Your task to perform on an android device: When is my next appointment? Image 0: 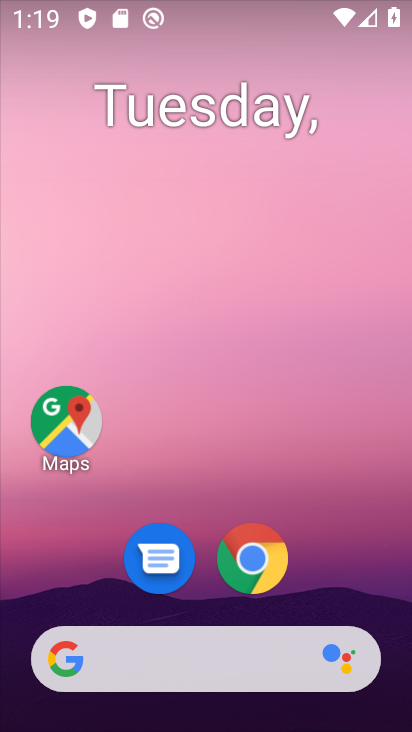
Step 0: drag from (214, 510) to (301, 82)
Your task to perform on an android device: When is my next appointment? Image 1: 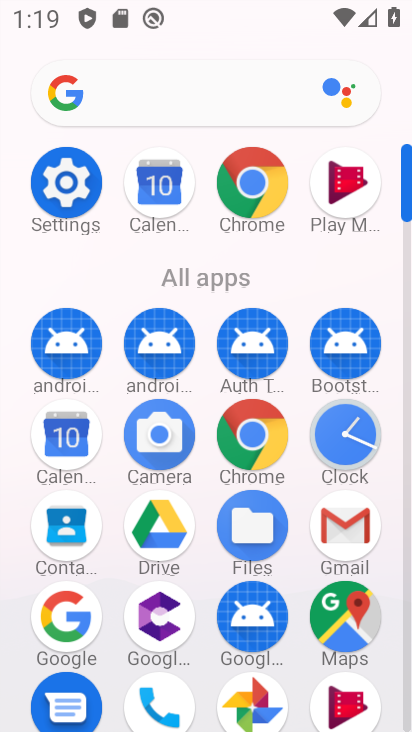
Step 1: click (56, 439)
Your task to perform on an android device: When is my next appointment? Image 2: 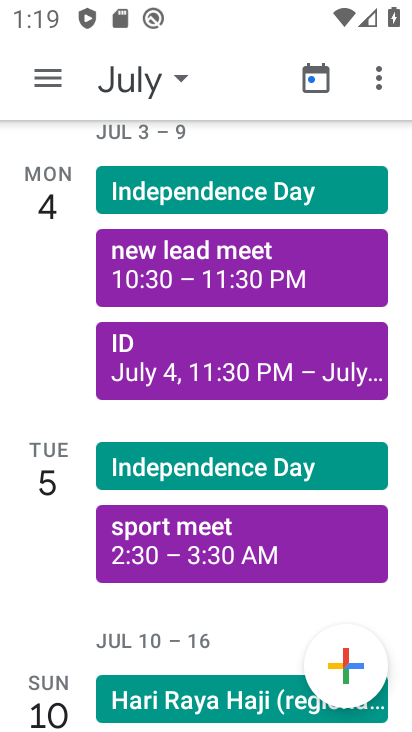
Step 2: click (148, 79)
Your task to perform on an android device: When is my next appointment? Image 3: 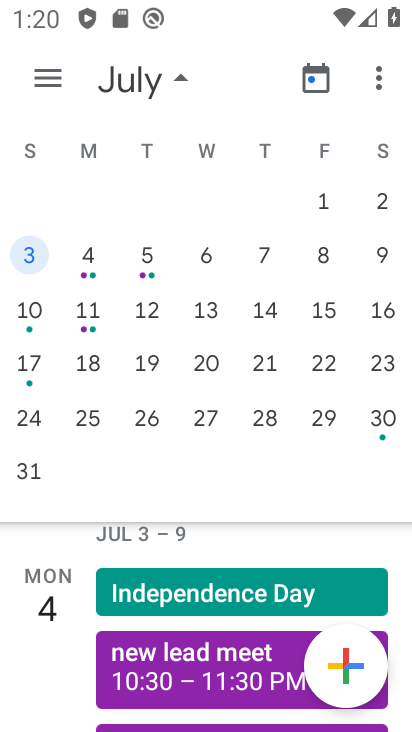
Step 3: drag from (6, 306) to (402, 336)
Your task to perform on an android device: When is my next appointment? Image 4: 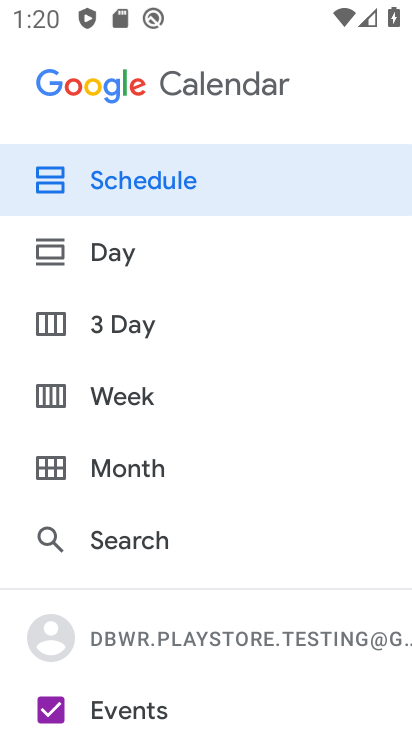
Step 4: drag from (381, 336) to (0, 368)
Your task to perform on an android device: When is my next appointment? Image 5: 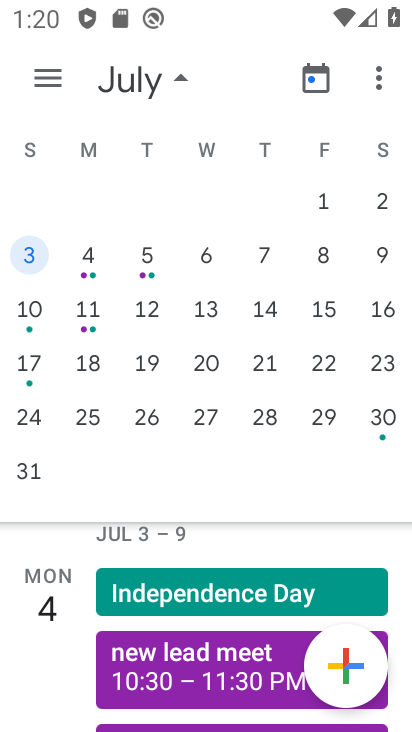
Step 5: drag from (115, 321) to (399, 316)
Your task to perform on an android device: When is my next appointment? Image 6: 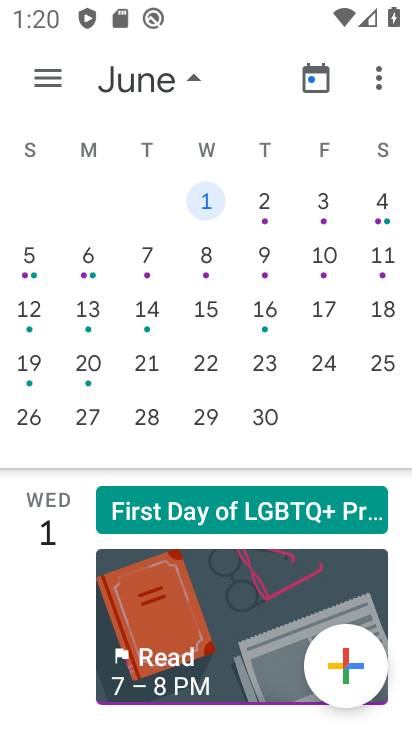
Step 6: drag from (45, 319) to (380, 361)
Your task to perform on an android device: When is my next appointment? Image 7: 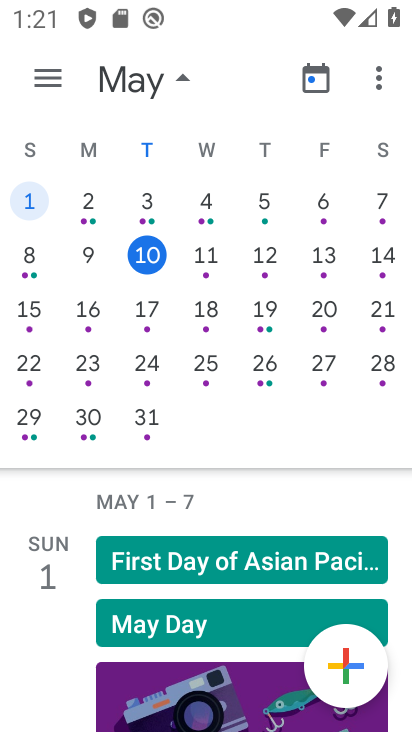
Step 7: click (151, 260)
Your task to perform on an android device: When is my next appointment? Image 8: 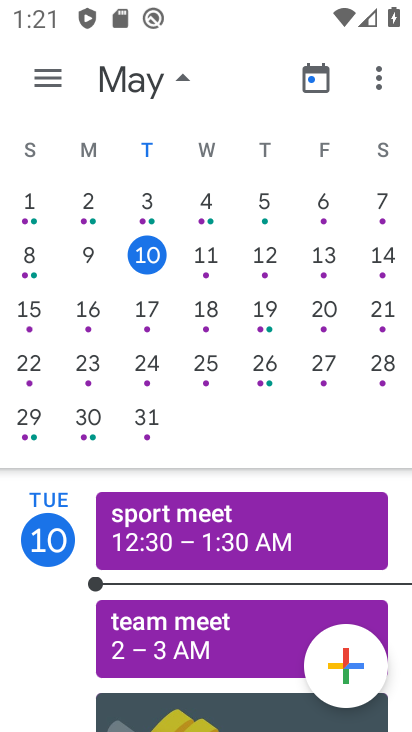
Step 8: task complete